Your task to perform on an android device: change the clock display to analog Image 0: 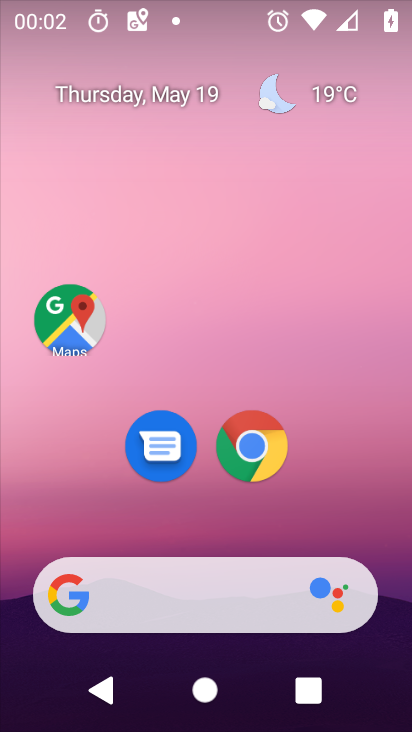
Step 0: press home button
Your task to perform on an android device: change the clock display to analog Image 1: 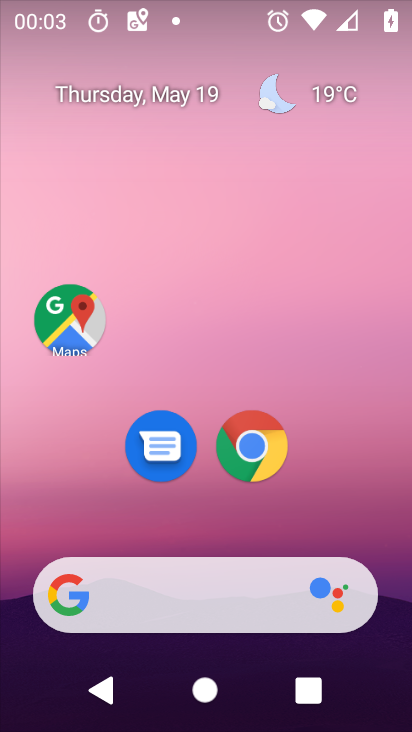
Step 1: drag from (173, 606) to (323, 181)
Your task to perform on an android device: change the clock display to analog Image 2: 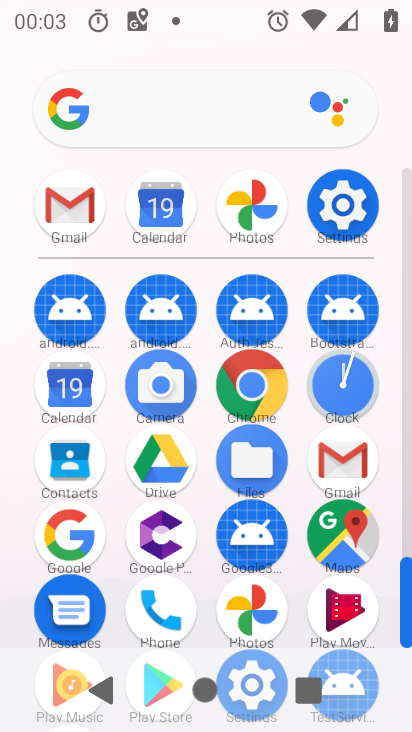
Step 2: click (348, 385)
Your task to perform on an android device: change the clock display to analog Image 3: 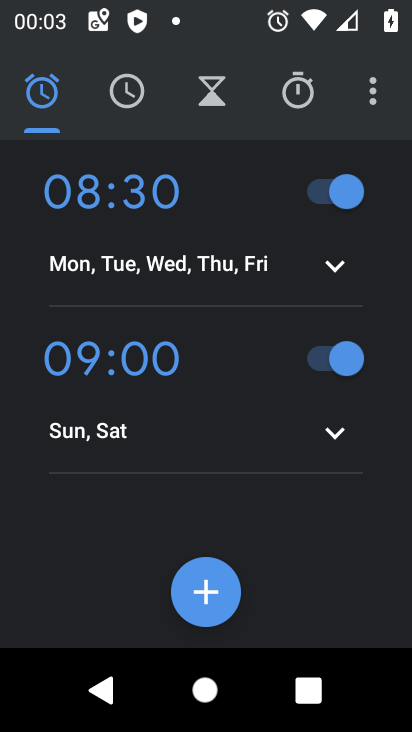
Step 3: click (366, 88)
Your task to perform on an android device: change the clock display to analog Image 4: 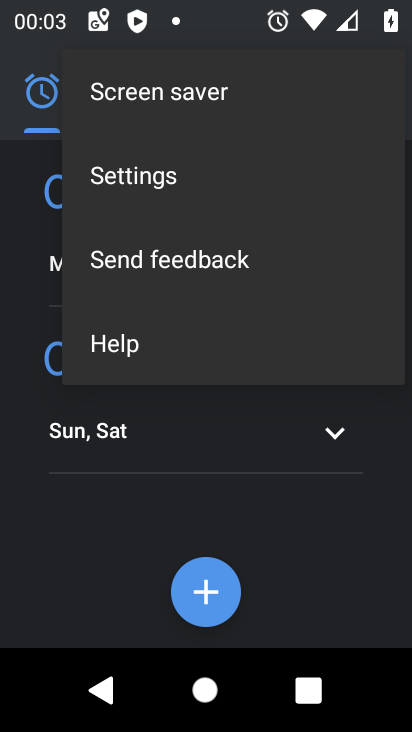
Step 4: click (194, 189)
Your task to perform on an android device: change the clock display to analog Image 5: 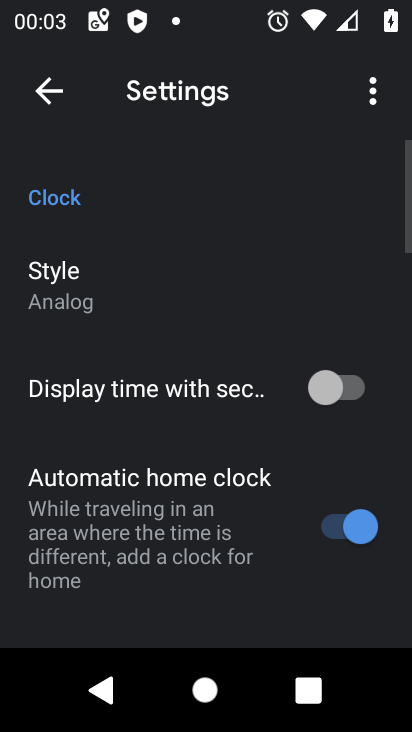
Step 5: click (78, 290)
Your task to perform on an android device: change the clock display to analog Image 6: 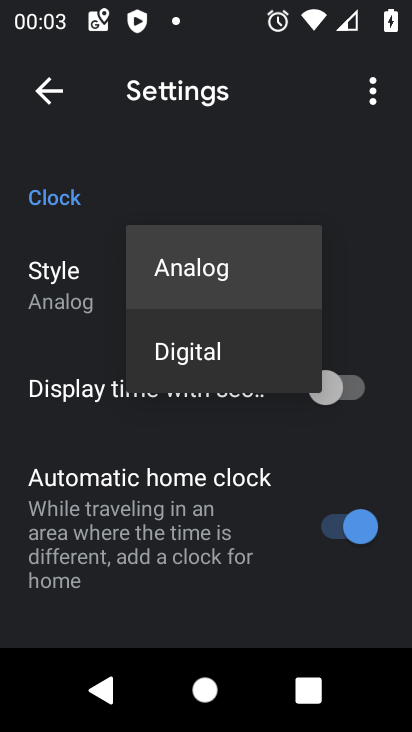
Step 6: click (305, 192)
Your task to perform on an android device: change the clock display to analog Image 7: 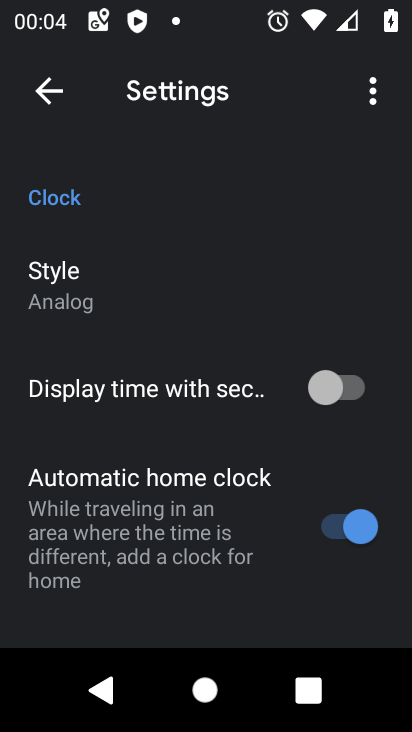
Step 7: task complete